Your task to perform on an android device: change the clock style Image 0: 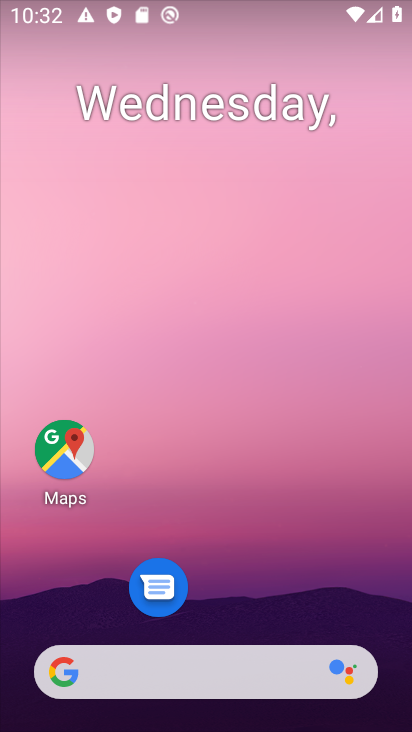
Step 0: press home button
Your task to perform on an android device: change the clock style Image 1: 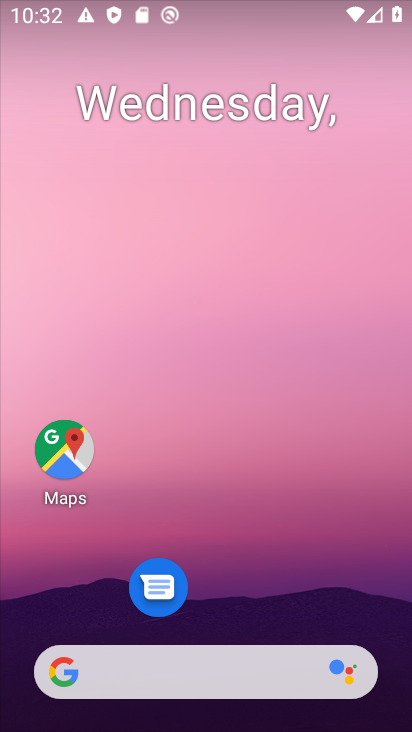
Step 1: drag from (235, 627) to (275, 4)
Your task to perform on an android device: change the clock style Image 2: 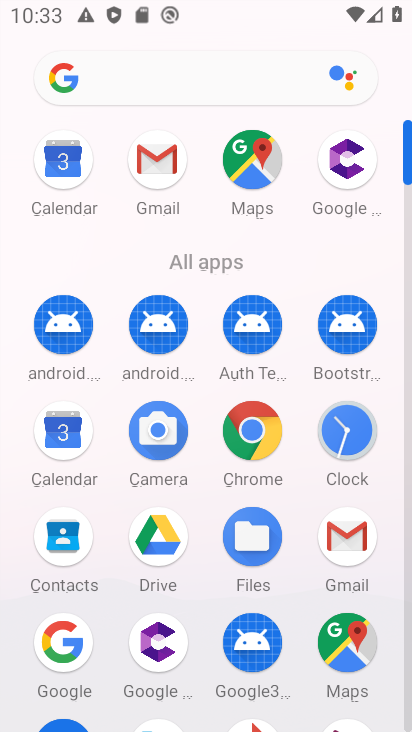
Step 2: click (344, 424)
Your task to perform on an android device: change the clock style Image 3: 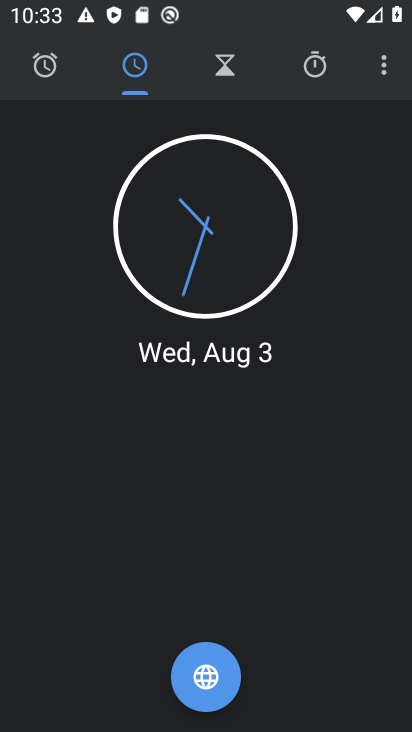
Step 3: click (383, 62)
Your task to perform on an android device: change the clock style Image 4: 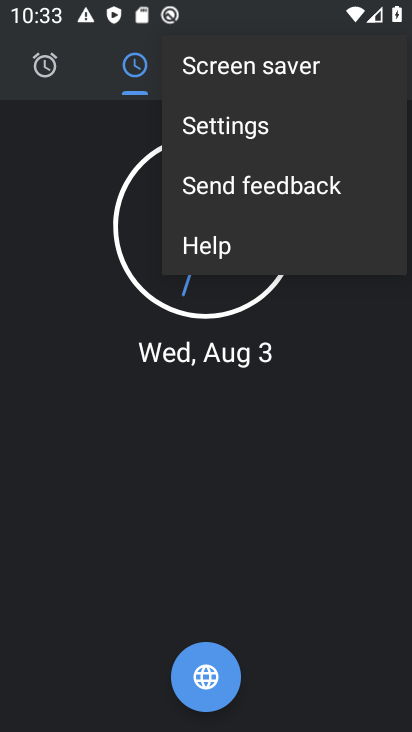
Step 4: click (267, 125)
Your task to perform on an android device: change the clock style Image 5: 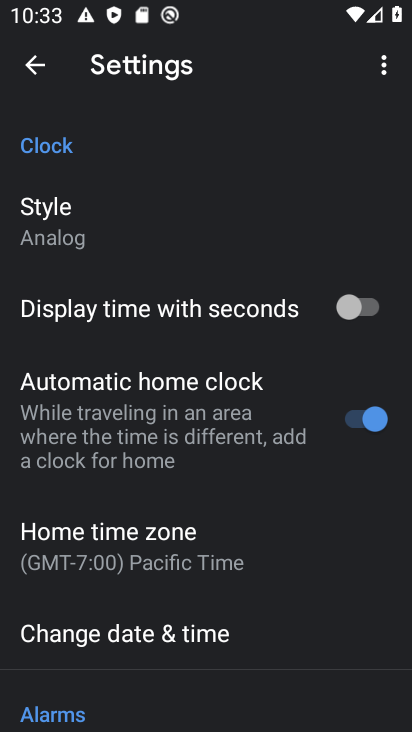
Step 5: click (103, 213)
Your task to perform on an android device: change the clock style Image 6: 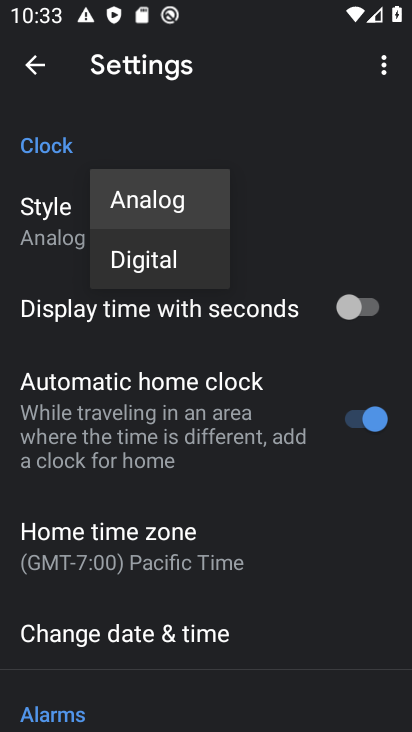
Step 6: click (145, 267)
Your task to perform on an android device: change the clock style Image 7: 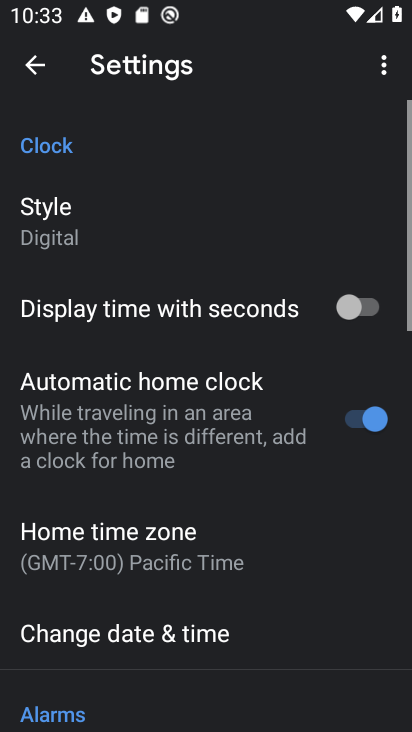
Step 7: task complete